Your task to perform on an android device: Open Chrome and go to settings Image 0: 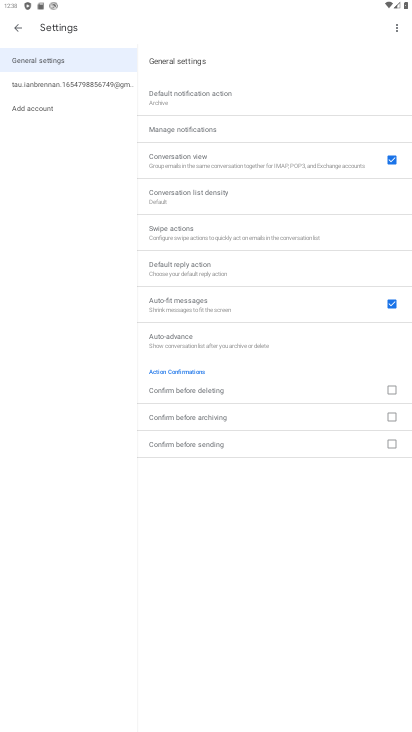
Step 0: press home button
Your task to perform on an android device: Open Chrome and go to settings Image 1: 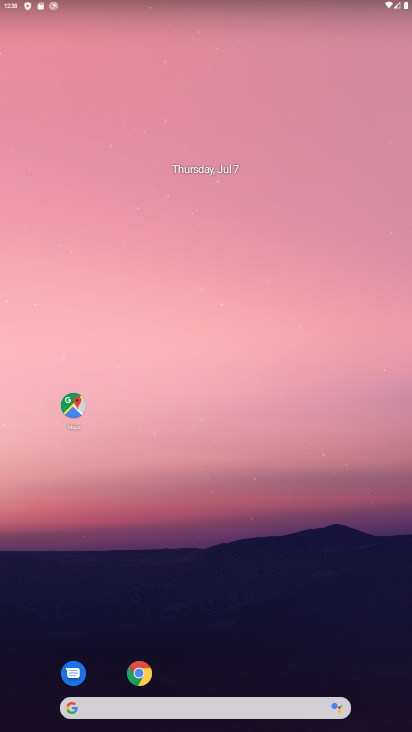
Step 1: click (144, 678)
Your task to perform on an android device: Open Chrome and go to settings Image 2: 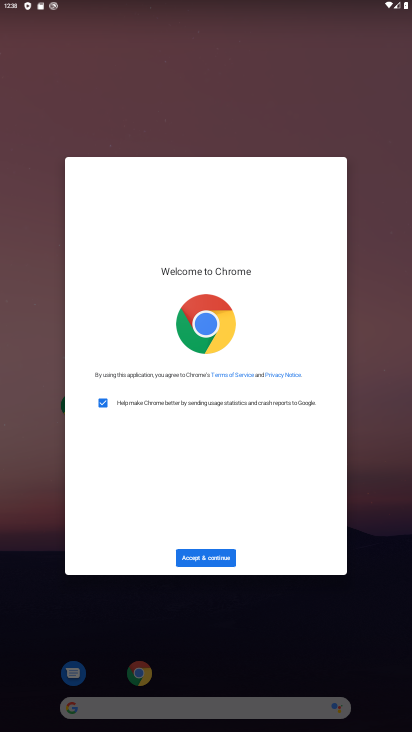
Step 2: click (178, 552)
Your task to perform on an android device: Open Chrome and go to settings Image 3: 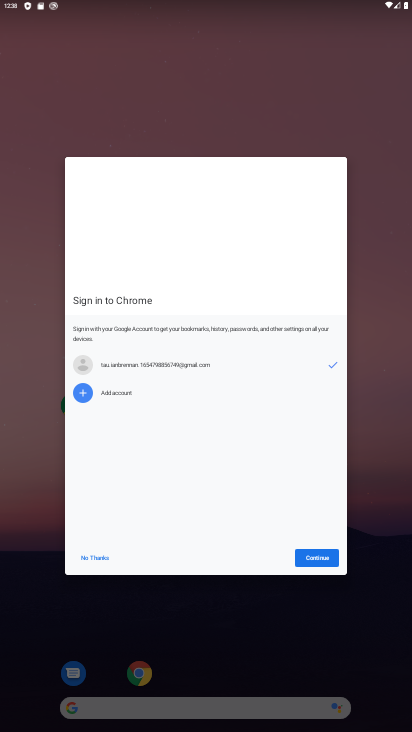
Step 3: click (316, 555)
Your task to perform on an android device: Open Chrome and go to settings Image 4: 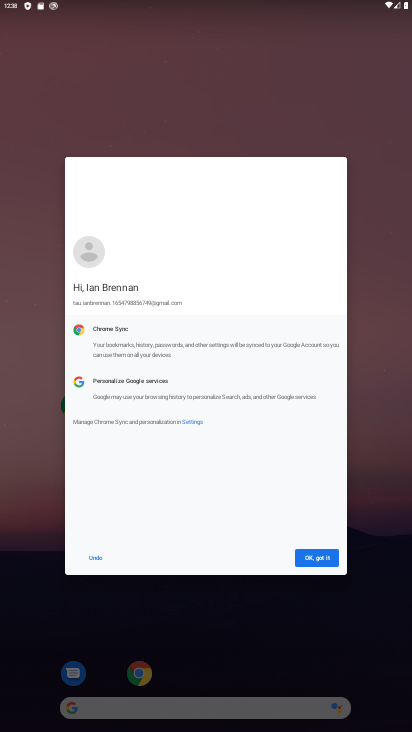
Step 4: click (316, 555)
Your task to perform on an android device: Open Chrome and go to settings Image 5: 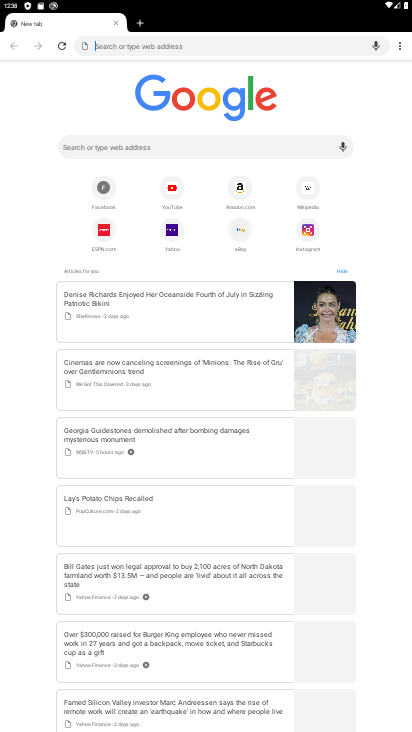
Step 5: task complete